Your task to perform on an android device: Go to location settings Image 0: 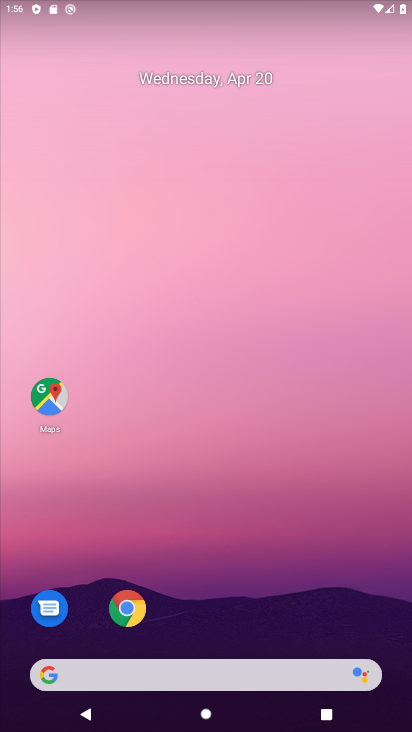
Step 0: drag from (320, 626) to (287, 366)
Your task to perform on an android device: Go to location settings Image 1: 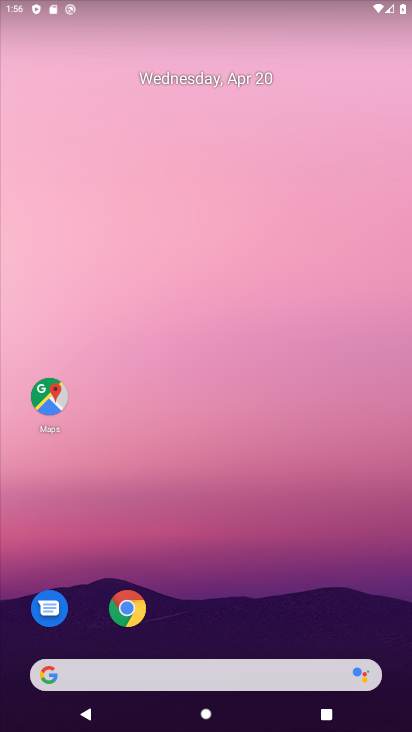
Step 1: drag from (222, 623) to (223, 129)
Your task to perform on an android device: Go to location settings Image 2: 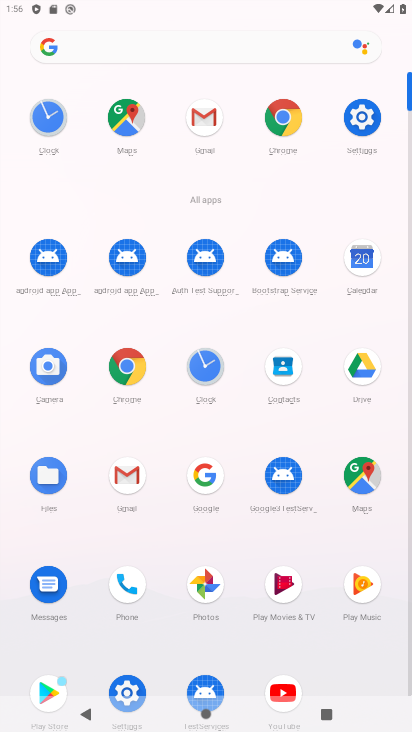
Step 2: click (357, 133)
Your task to perform on an android device: Go to location settings Image 3: 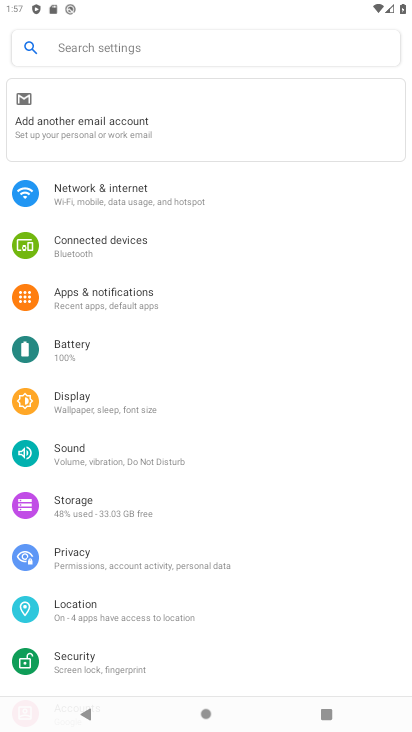
Step 3: click (113, 603)
Your task to perform on an android device: Go to location settings Image 4: 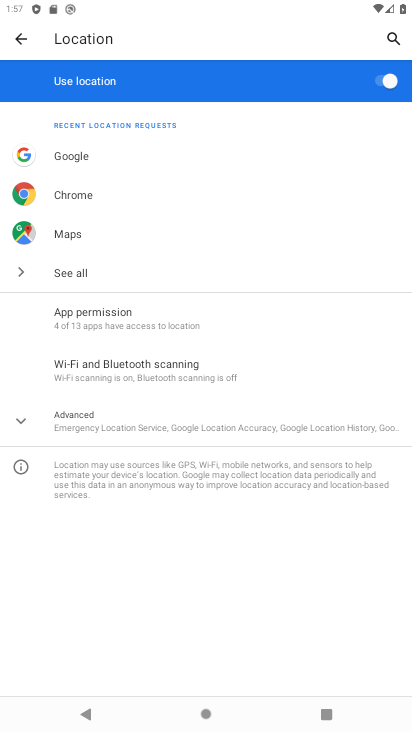
Step 4: task complete